Your task to perform on an android device: find photos in the google photos app Image 0: 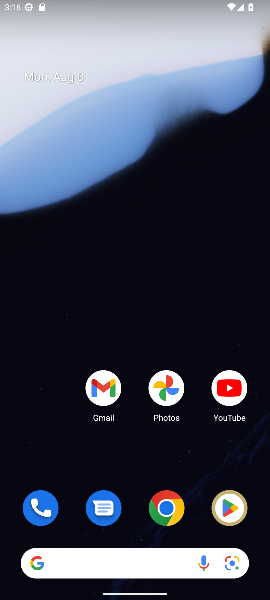
Step 0: click (168, 384)
Your task to perform on an android device: find photos in the google photos app Image 1: 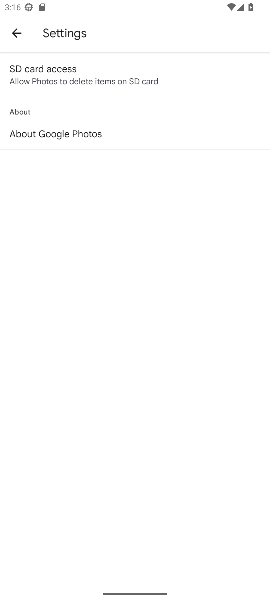
Step 1: click (12, 28)
Your task to perform on an android device: find photos in the google photos app Image 2: 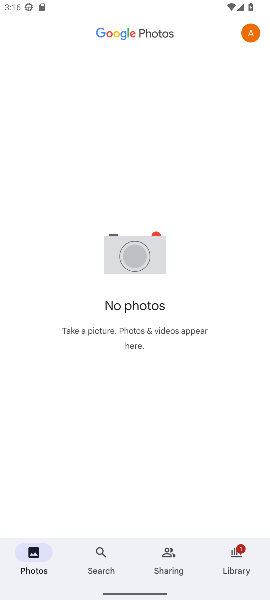
Step 2: click (98, 551)
Your task to perform on an android device: find photos in the google photos app Image 3: 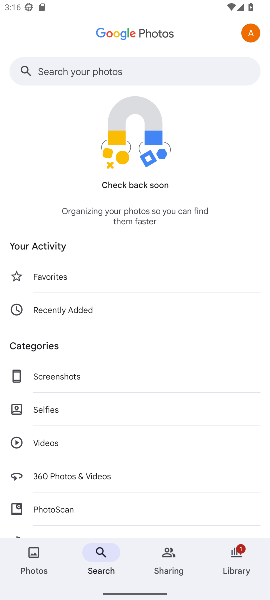
Step 3: click (98, 551)
Your task to perform on an android device: find photos in the google photos app Image 4: 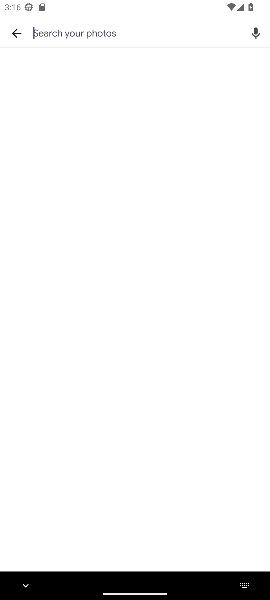
Step 4: task complete